Your task to perform on an android device: Open Reddit.com Image 0: 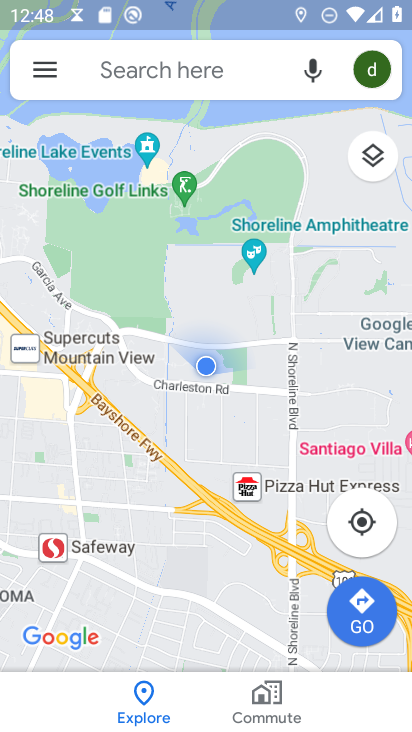
Step 0: press home button
Your task to perform on an android device: Open Reddit.com Image 1: 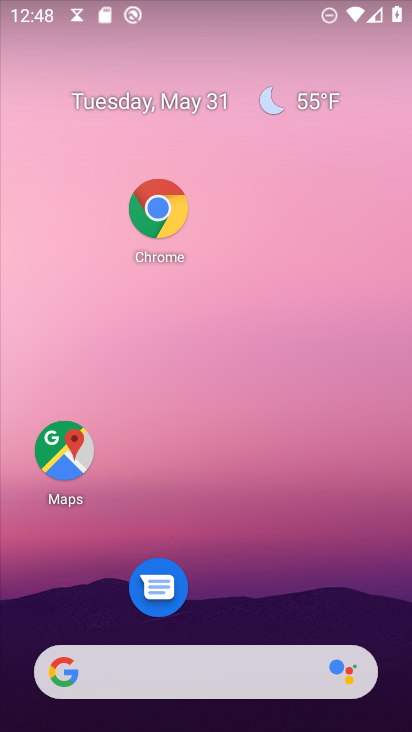
Step 1: click (173, 242)
Your task to perform on an android device: Open Reddit.com Image 2: 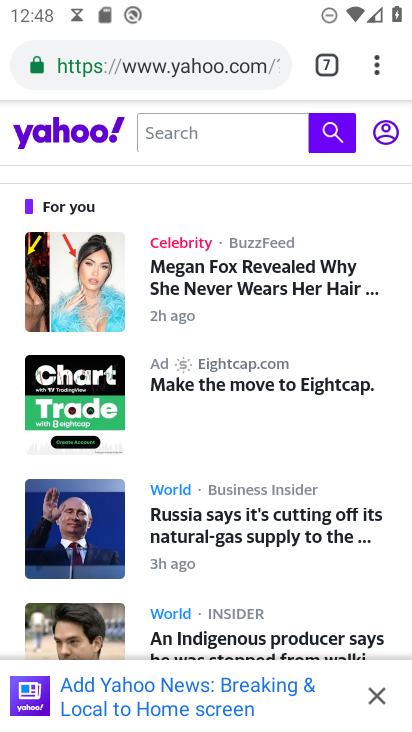
Step 2: click (322, 69)
Your task to perform on an android device: Open Reddit.com Image 3: 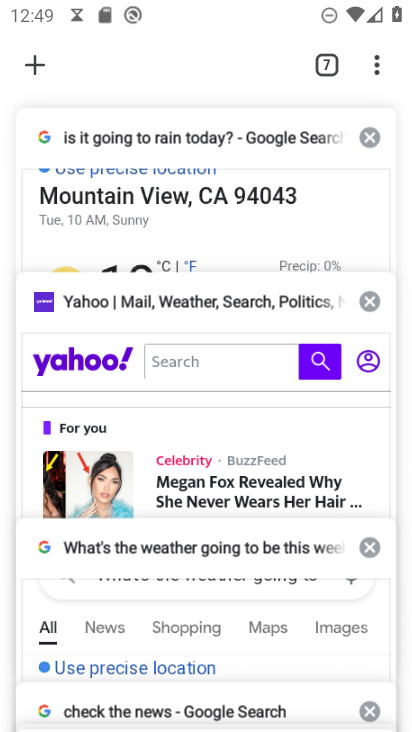
Step 3: click (27, 59)
Your task to perform on an android device: Open Reddit.com Image 4: 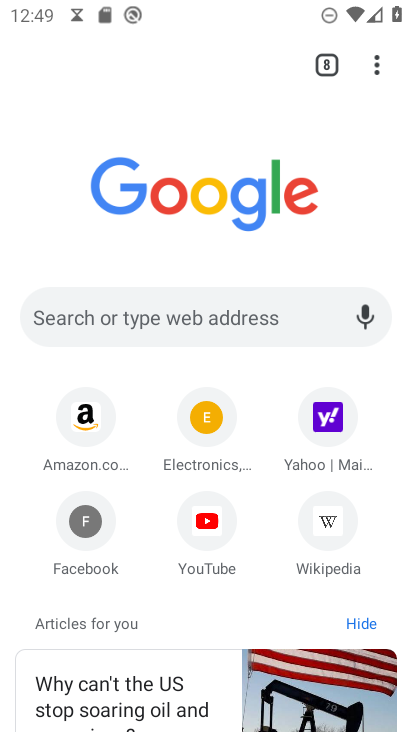
Step 4: click (129, 332)
Your task to perform on an android device: Open Reddit.com Image 5: 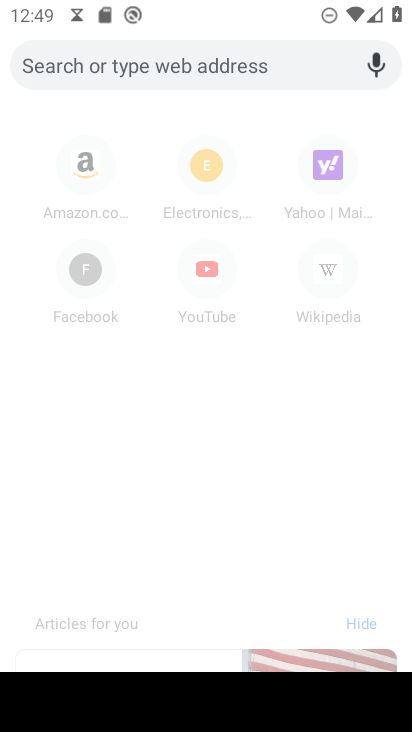
Step 5: type ""
Your task to perform on an android device: Open Reddit.com Image 6: 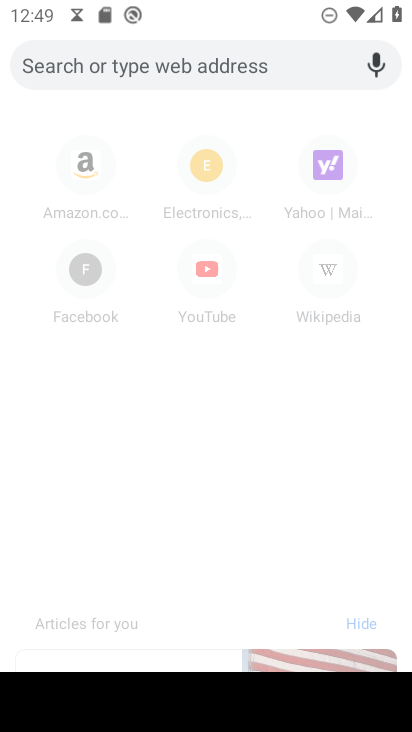
Step 6: type "reddit.com"
Your task to perform on an android device: Open Reddit.com Image 7: 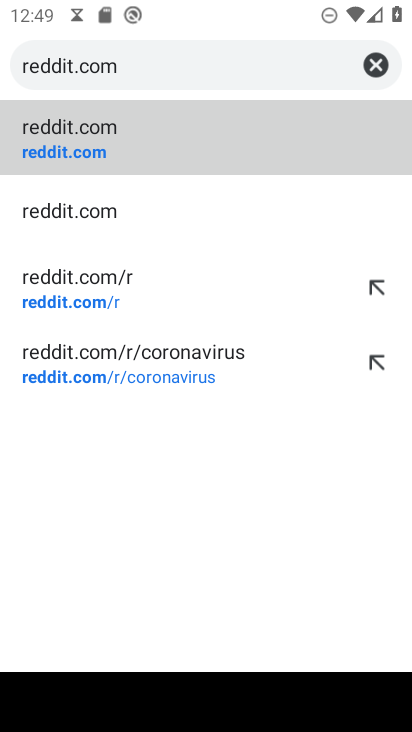
Step 7: click (111, 130)
Your task to perform on an android device: Open Reddit.com Image 8: 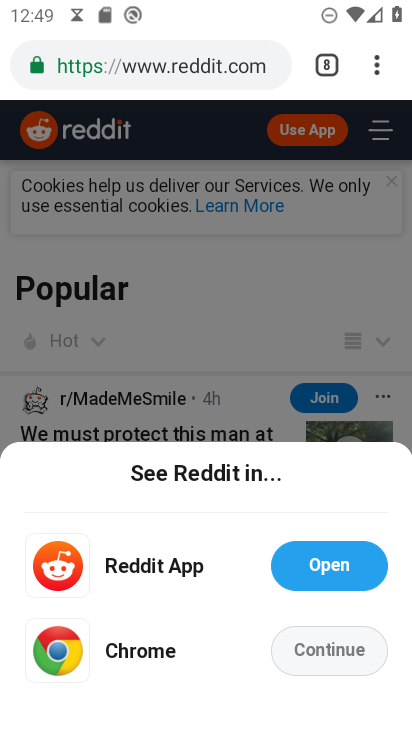
Step 8: task complete